Your task to perform on an android device: add a label to a message in the gmail app Image 0: 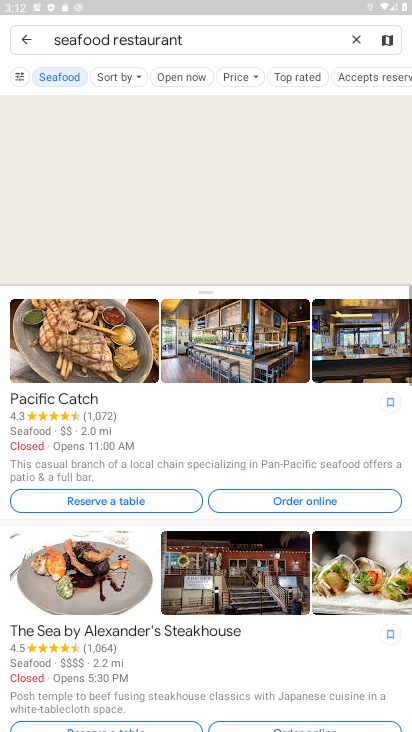
Step 0: click (237, 157)
Your task to perform on an android device: add a label to a message in the gmail app Image 1: 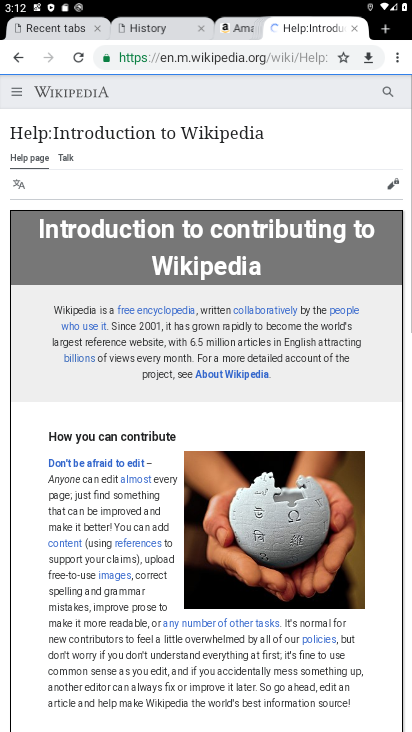
Step 1: press home button
Your task to perform on an android device: add a label to a message in the gmail app Image 2: 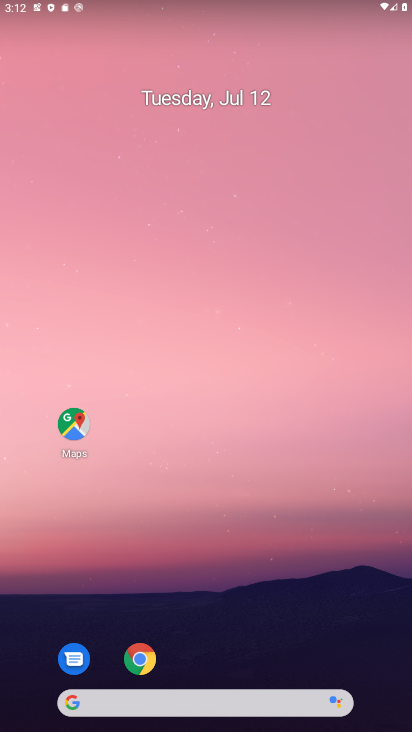
Step 2: click (238, 726)
Your task to perform on an android device: add a label to a message in the gmail app Image 3: 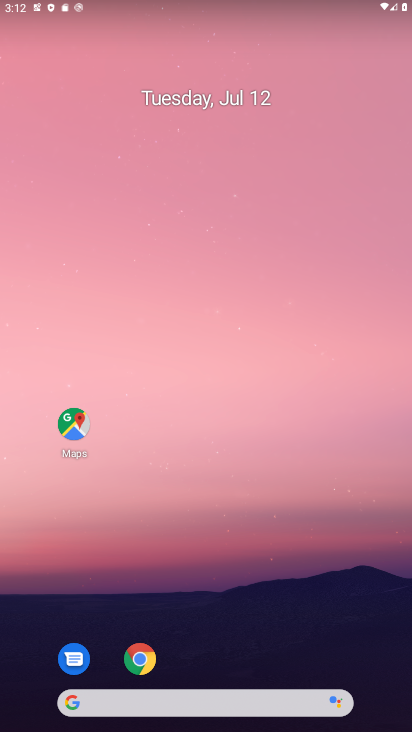
Step 3: drag from (214, 296) to (198, 133)
Your task to perform on an android device: add a label to a message in the gmail app Image 4: 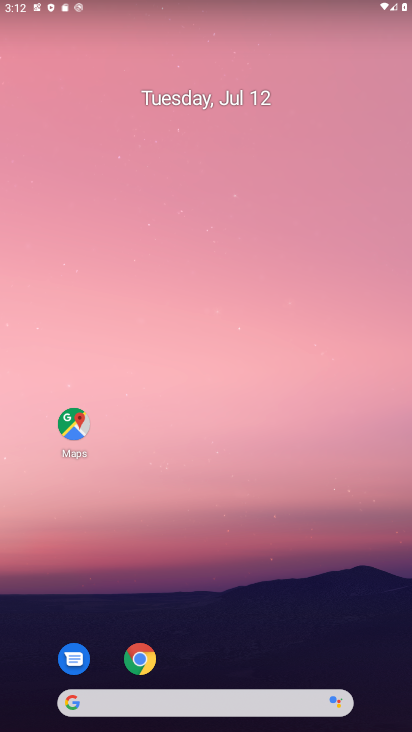
Step 4: drag from (210, 730) to (223, 147)
Your task to perform on an android device: add a label to a message in the gmail app Image 5: 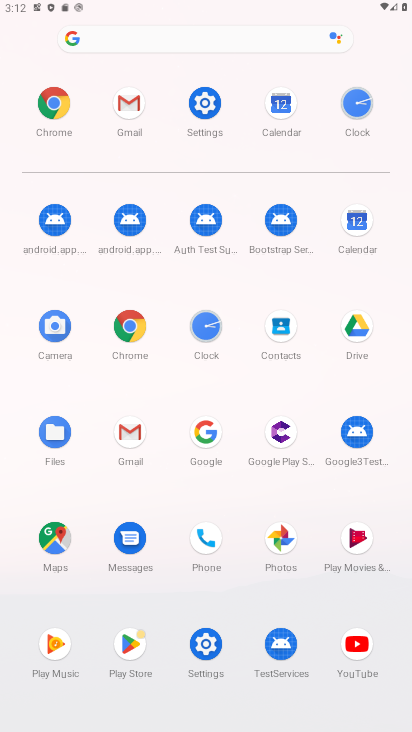
Step 5: click (128, 427)
Your task to perform on an android device: add a label to a message in the gmail app Image 6: 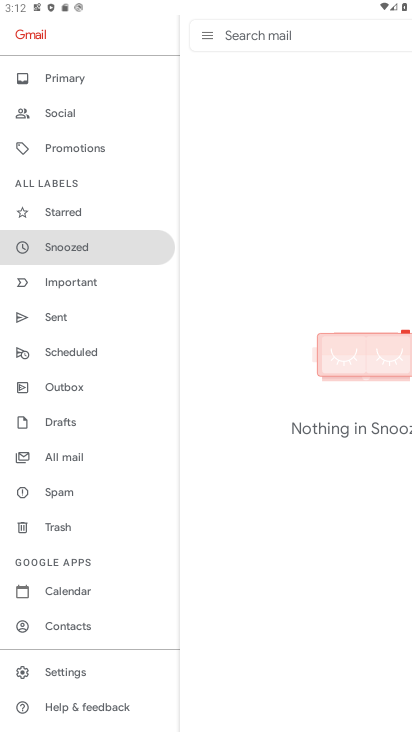
Step 6: click (73, 76)
Your task to perform on an android device: add a label to a message in the gmail app Image 7: 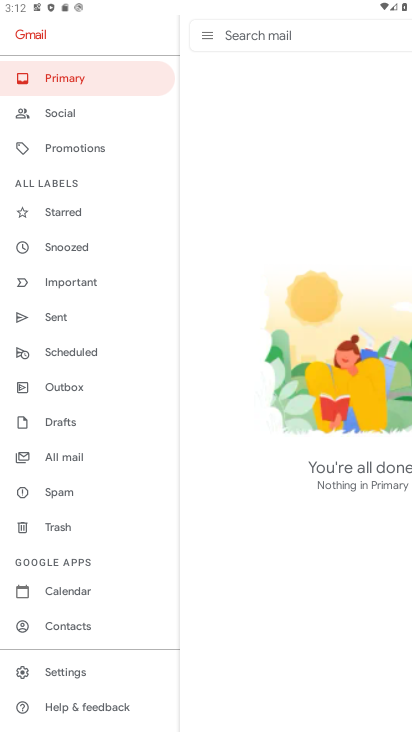
Step 7: task complete